Your task to perform on an android device: Is it going to rain today? Image 0: 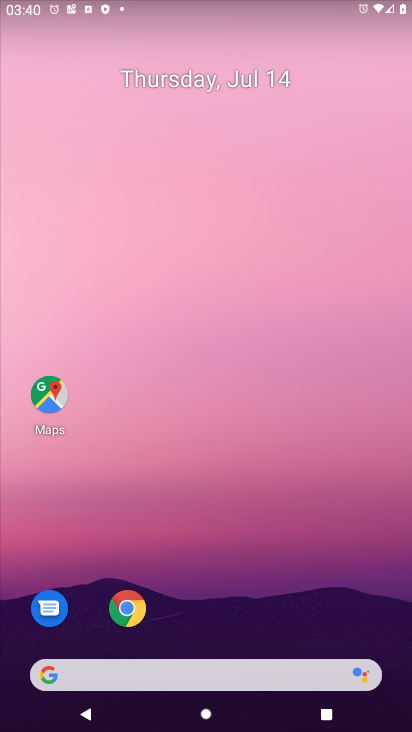
Step 0: drag from (5, 272) to (383, 298)
Your task to perform on an android device: Is it going to rain today? Image 1: 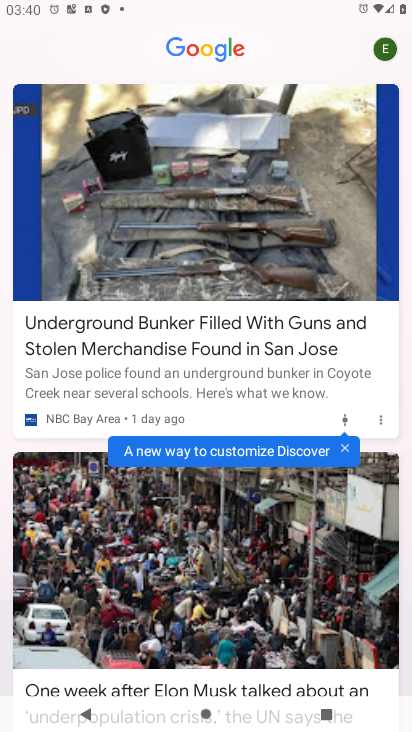
Step 1: task complete